Your task to perform on an android device: What is the recent news? Image 0: 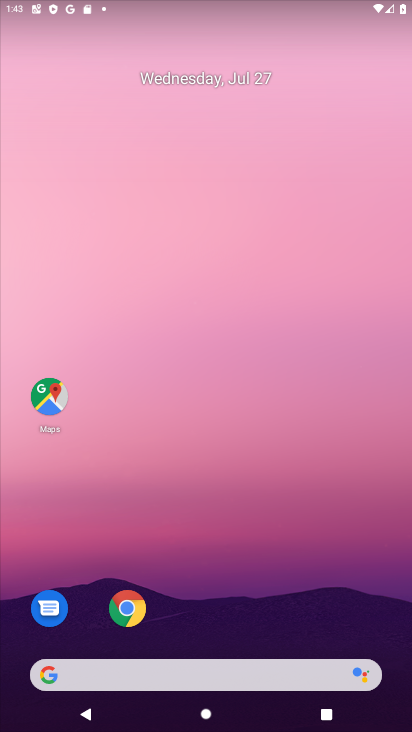
Step 0: click (71, 676)
Your task to perform on an android device: What is the recent news? Image 1: 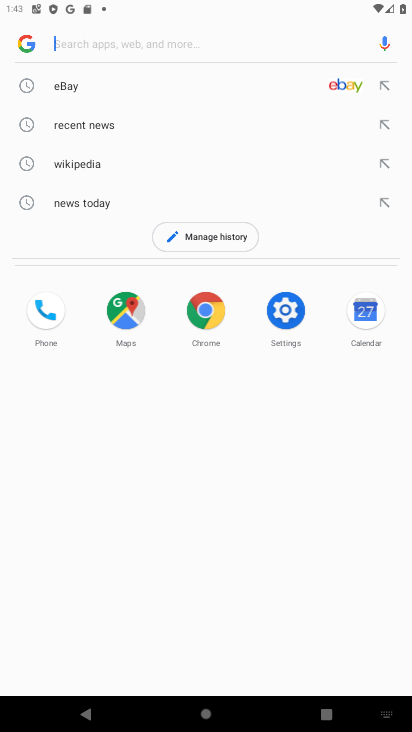
Step 1: type "What is the recent news?"
Your task to perform on an android device: What is the recent news? Image 2: 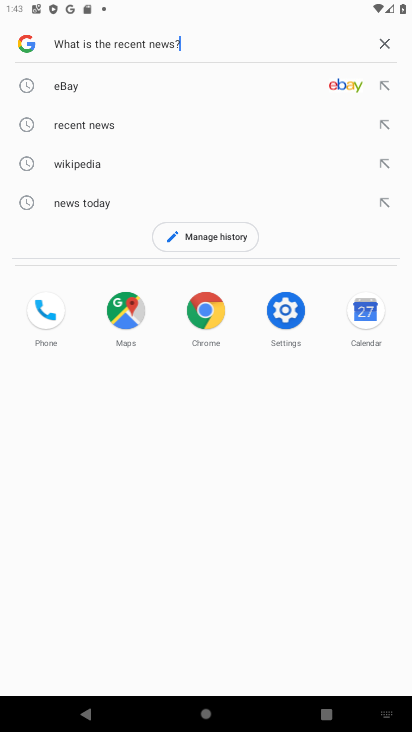
Step 2: type ""
Your task to perform on an android device: What is the recent news? Image 3: 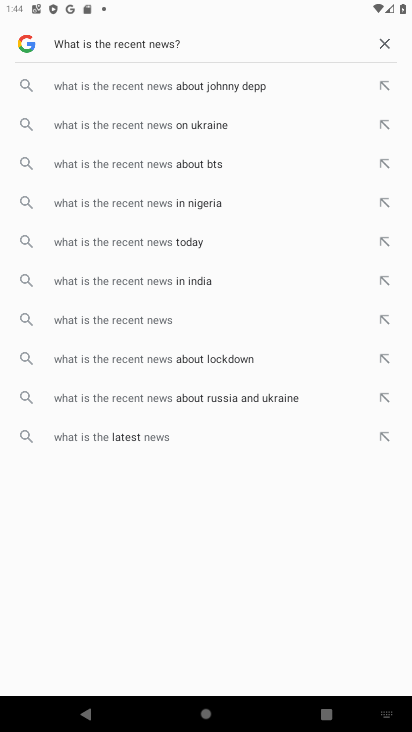
Step 3: type ""
Your task to perform on an android device: What is the recent news? Image 4: 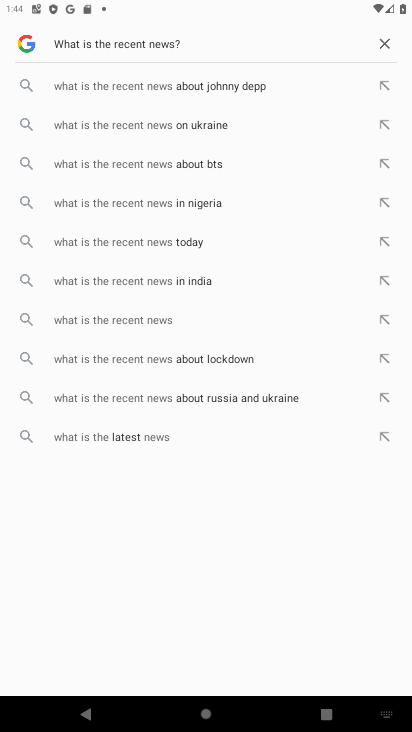
Step 4: type ""
Your task to perform on an android device: What is the recent news? Image 5: 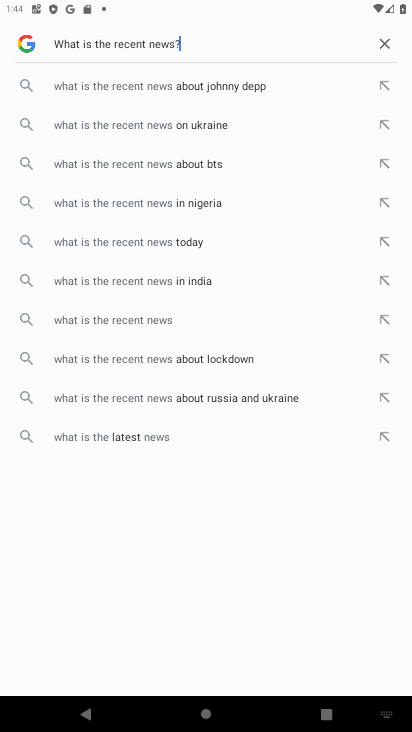
Step 5: task complete